Your task to perform on an android device: What's on my calendar today? Image 0: 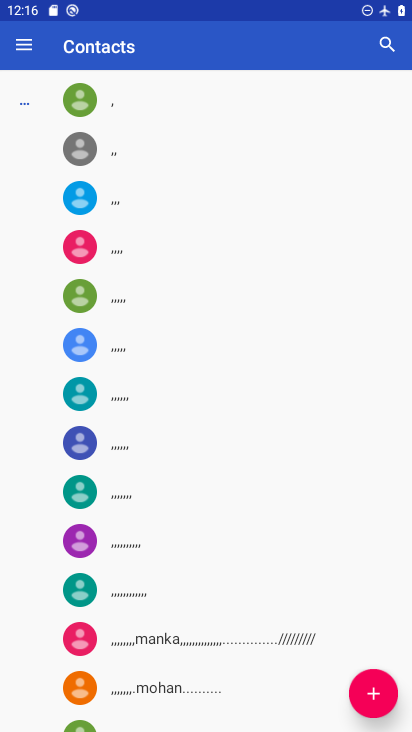
Step 0: press home button
Your task to perform on an android device: What's on my calendar today? Image 1: 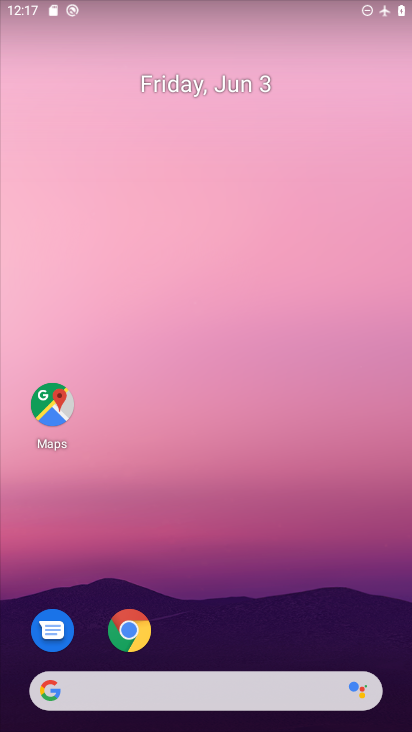
Step 1: drag from (238, 657) to (175, 153)
Your task to perform on an android device: What's on my calendar today? Image 2: 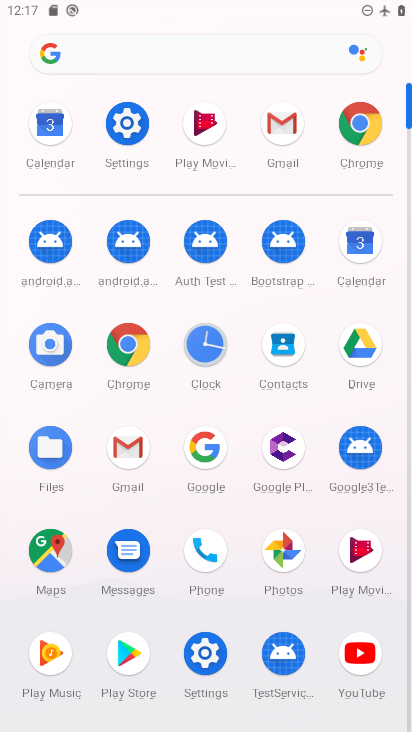
Step 2: click (361, 248)
Your task to perform on an android device: What's on my calendar today? Image 3: 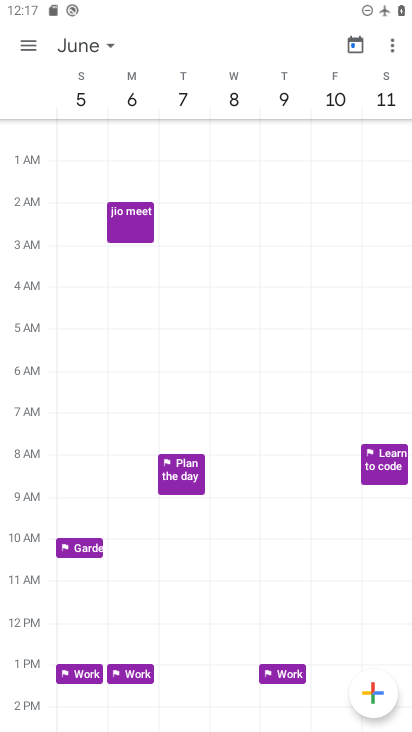
Step 3: click (40, 53)
Your task to perform on an android device: What's on my calendar today? Image 4: 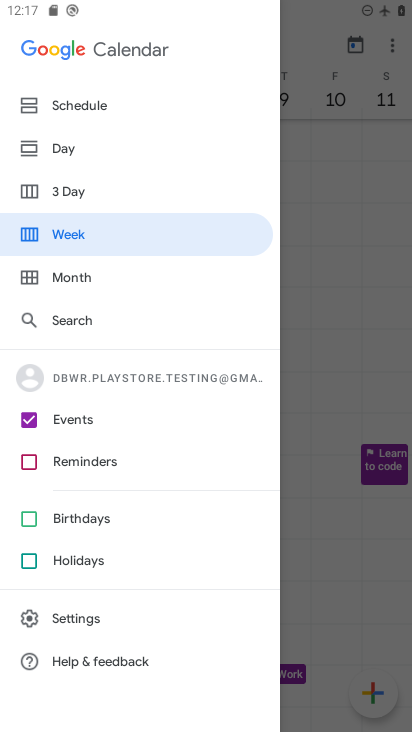
Step 4: click (100, 152)
Your task to perform on an android device: What's on my calendar today? Image 5: 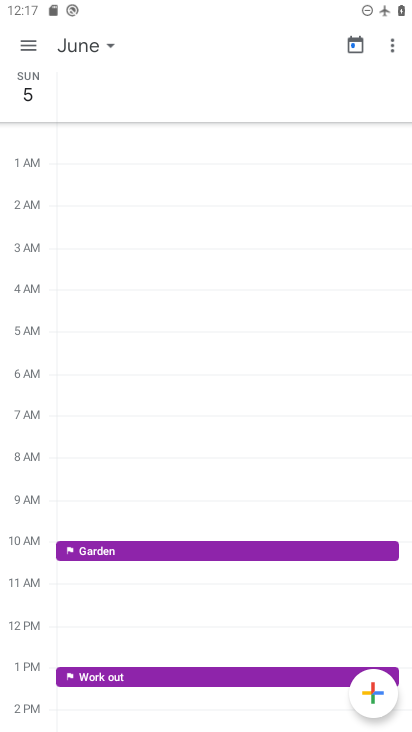
Step 5: click (102, 44)
Your task to perform on an android device: What's on my calendar today? Image 6: 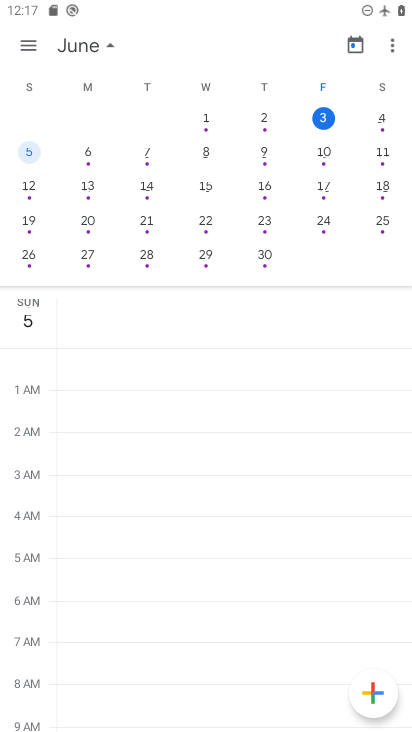
Step 6: click (326, 115)
Your task to perform on an android device: What's on my calendar today? Image 7: 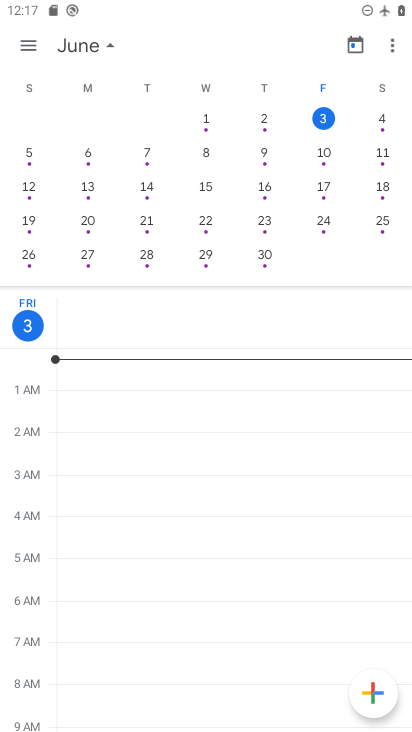
Step 7: task complete